Your task to perform on an android device: Show me productivity apps on the Play Store Image 0: 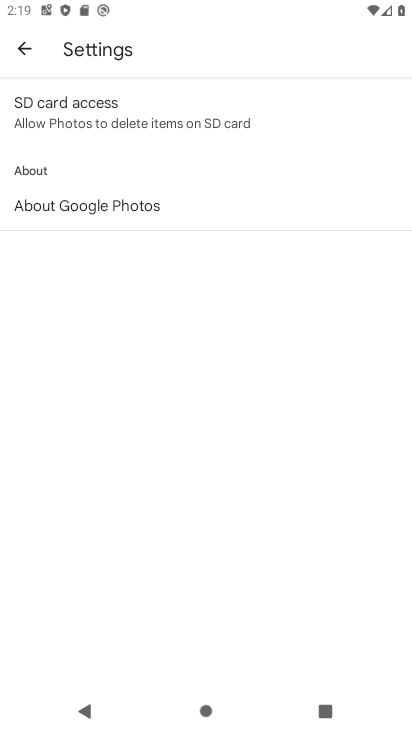
Step 0: press home button
Your task to perform on an android device: Show me productivity apps on the Play Store Image 1: 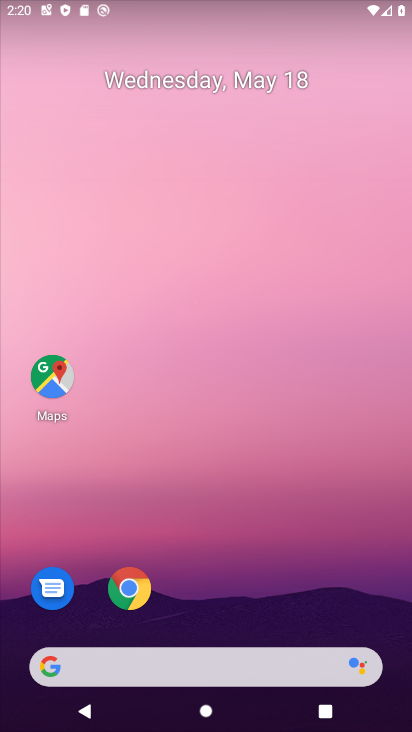
Step 1: drag from (349, 571) to (366, 184)
Your task to perform on an android device: Show me productivity apps on the Play Store Image 2: 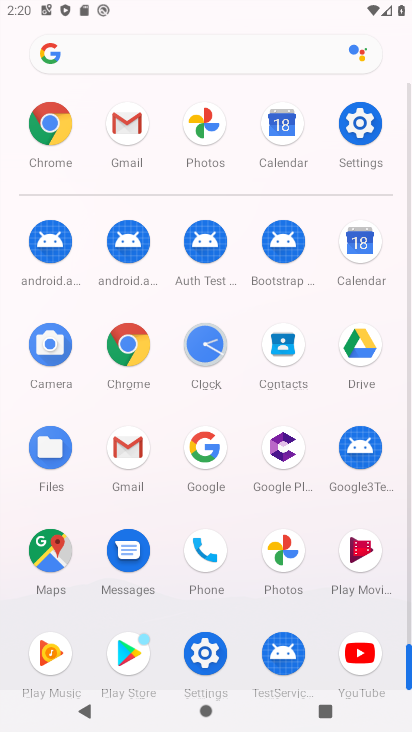
Step 2: click (128, 646)
Your task to perform on an android device: Show me productivity apps on the Play Store Image 3: 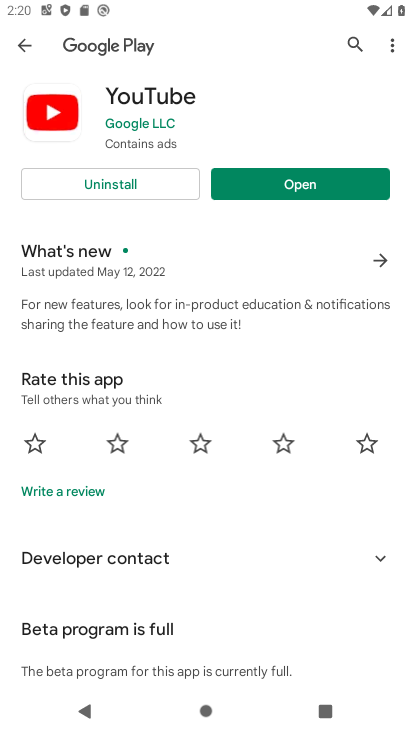
Step 3: click (22, 48)
Your task to perform on an android device: Show me productivity apps on the Play Store Image 4: 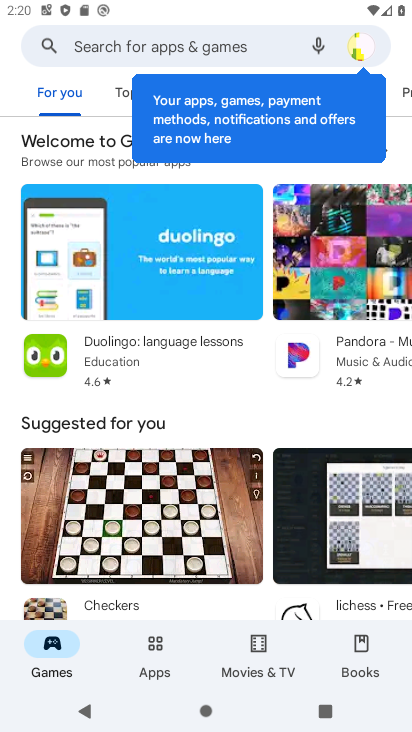
Step 4: drag from (260, 401) to (267, 277)
Your task to perform on an android device: Show me productivity apps on the Play Store Image 5: 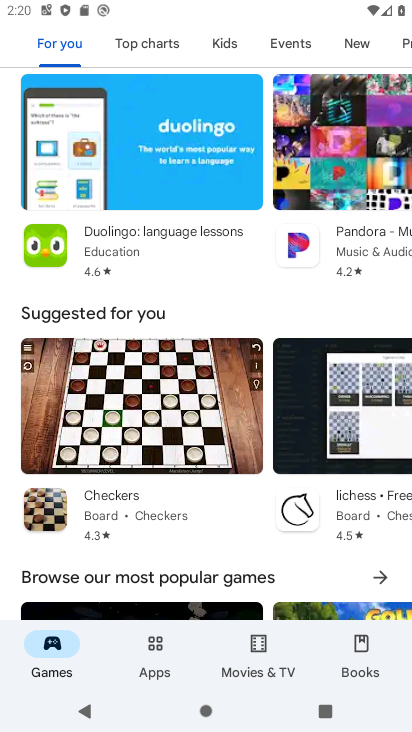
Step 5: drag from (255, 514) to (273, 398)
Your task to perform on an android device: Show me productivity apps on the Play Store Image 6: 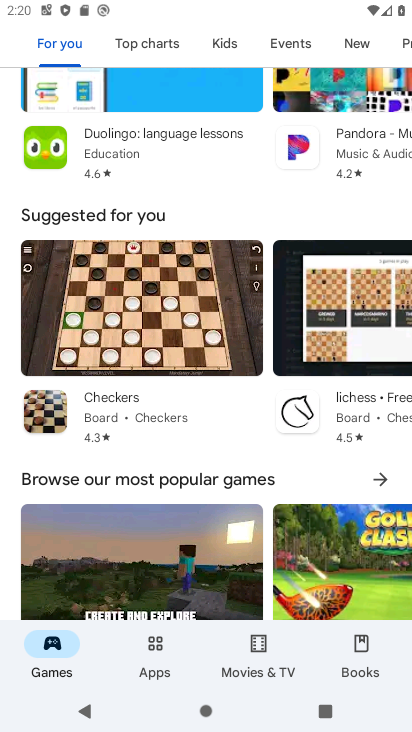
Step 6: drag from (229, 444) to (257, 302)
Your task to perform on an android device: Show me productivity apps on the Play Store Image 7: 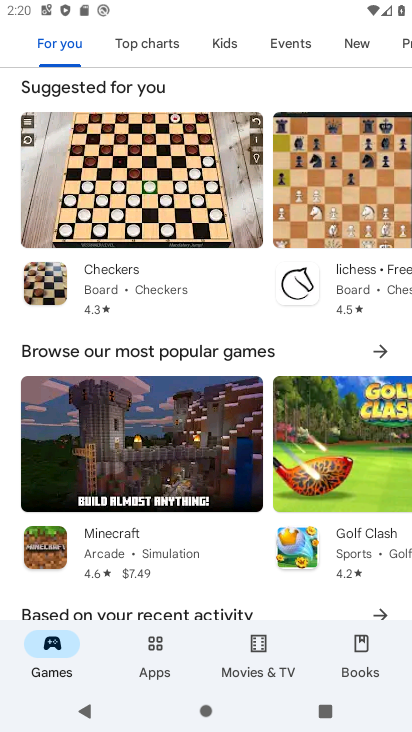
Step 7: drag from (239, 556) to (275, 366)
Your task to perform on an android device: Show me productivity apps on the Play Store Image 8: 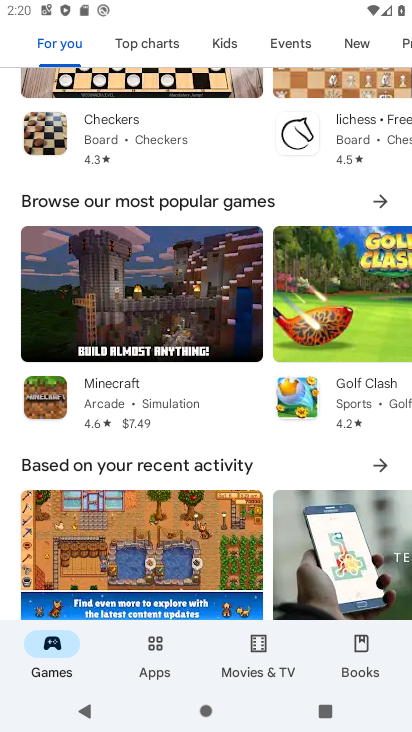
Step 8: drag from (247, 573) to (251, 394)
Your task to perform on an android device: Show me productivity apps on the Play Store Image 9: 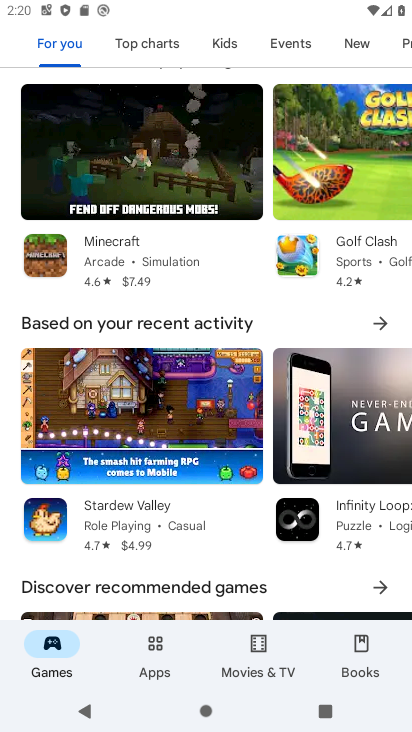
Step 9: drag from (220, 533) to (234, 396)
Your task to perform on an android device: Show me productivity apps on the Play Store Image 10: 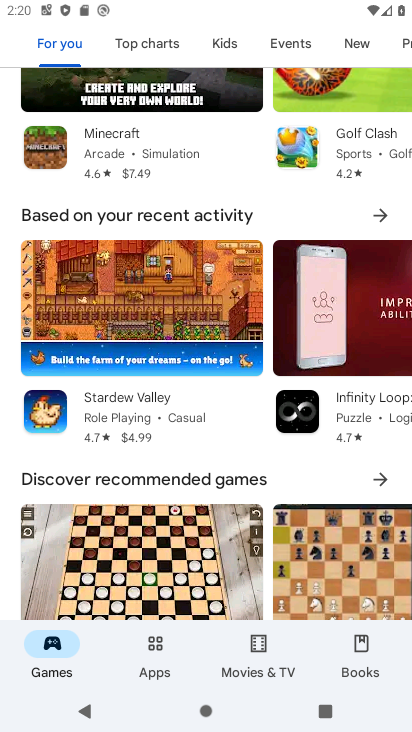
Step 10: click (153, 647)
Your task to perform on an android device: Show me productivity apps on the Play Store Image 11: 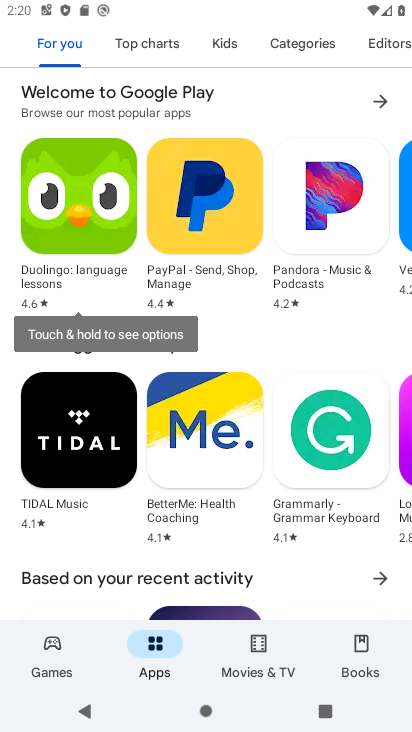
Step 11: click (235, 330)
Your task to perform on an android device: Show me productivity apps on the Play Store Image 12: 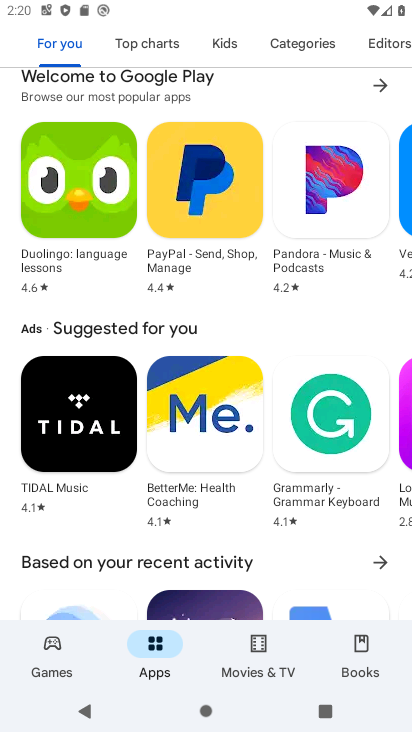
Step 12: drag from (221, 491) to (228, 266)
Your task to perform on an android device: Show me productivity apps on the Play Store Image 13: 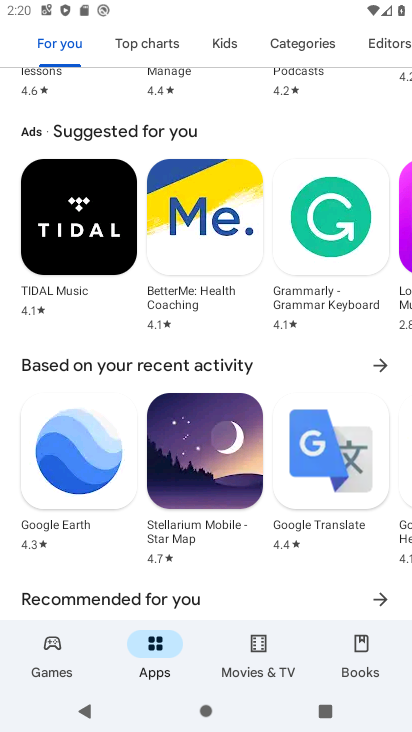
Step 13: click (212, 350)
Your task to perform on an android device: Show me productivity apps on the Play Store Image 14: 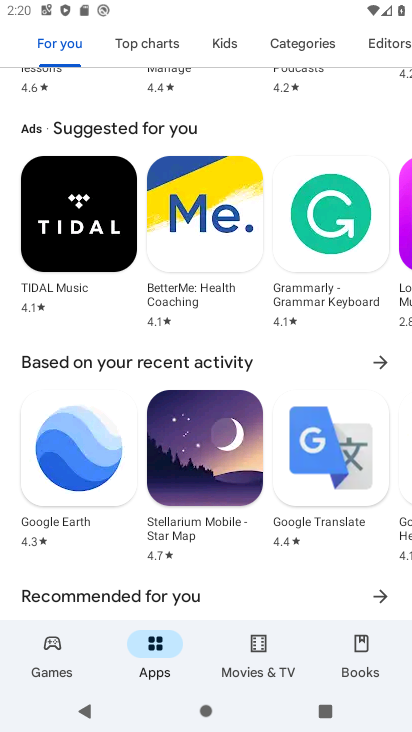
Step 14: task complete